Your task to perform on an android device: Go to Yahoo.com Image 0: 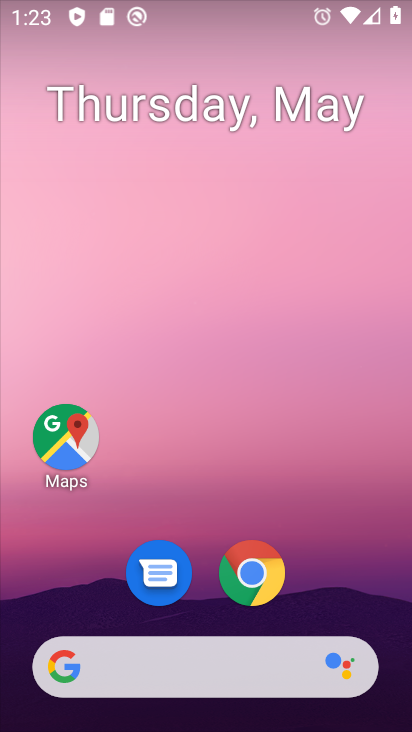
Step 0: click (265, 582)
Your task to perform on an android device: Go to Yahoo.com Image 1: 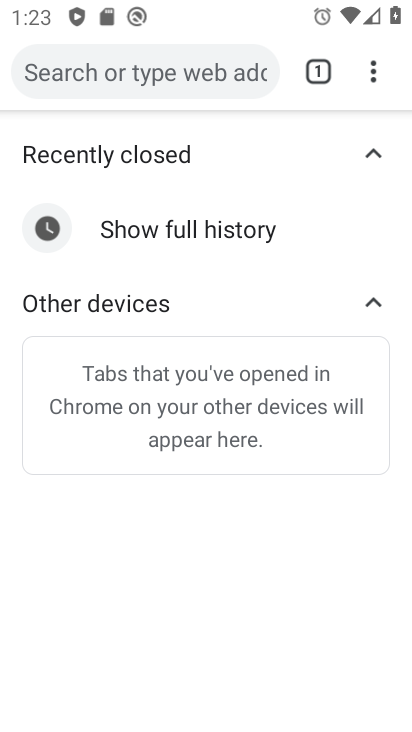
Step 1: click (184, 75)
Your task to perform on an android device: Go to Yahoo.com Image 2: 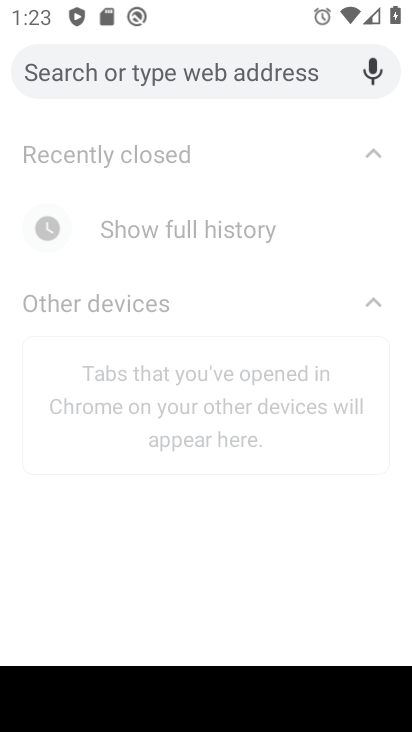
Step 2: type "Yahoo.com"
Your task to perform on an android device: Go to Yahoo.com Image 3: 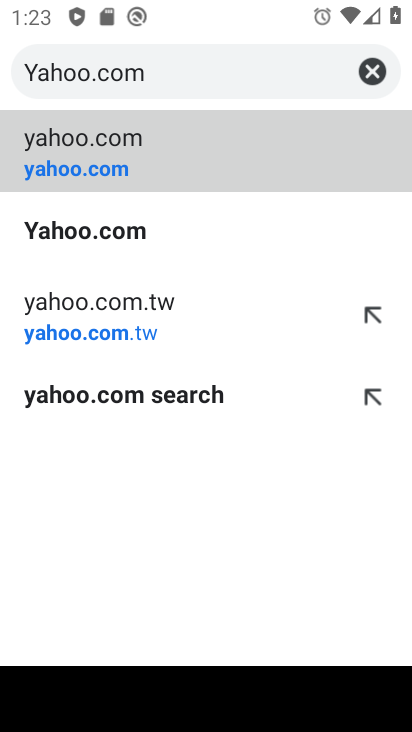
Step 3: click (99, 231)
Your task to perform on an android device: Go to Yahoo.com Image 4: 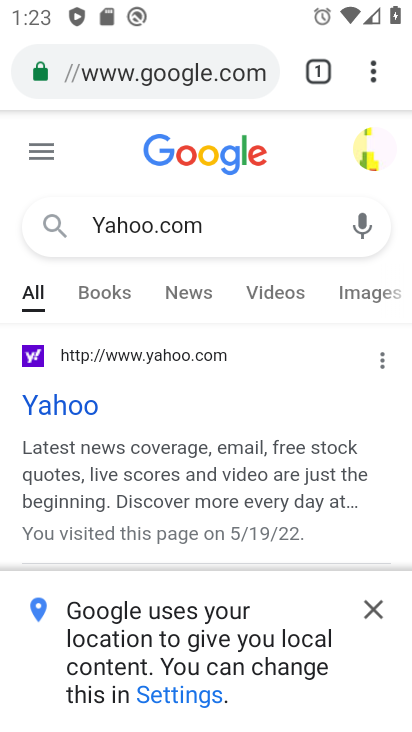
Step 4: task complete